Your task to perform on an android device: Open wifi settings Image 0: 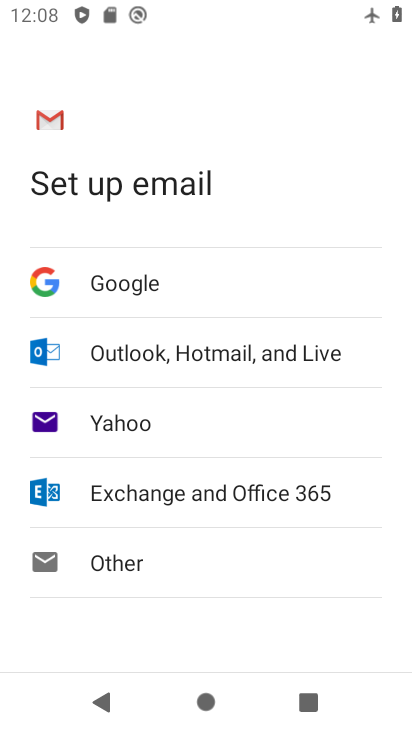
Step 0: press home button
Your task to perform on an android device: Open wifi settings Image 1: 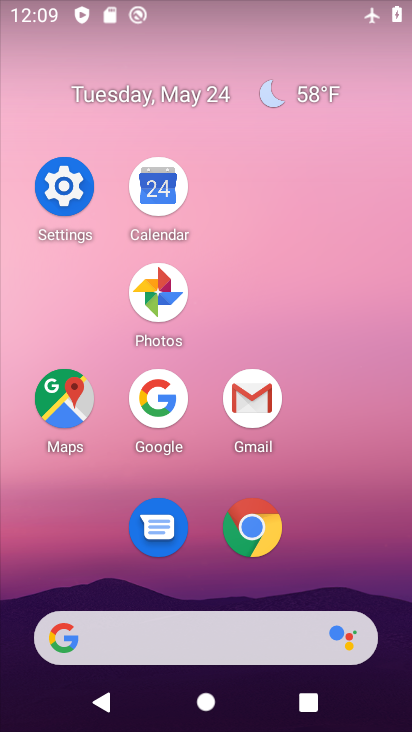
Step 1: click (88, 187)
Your task to perform on an android device: Open wifi settings Image 2: 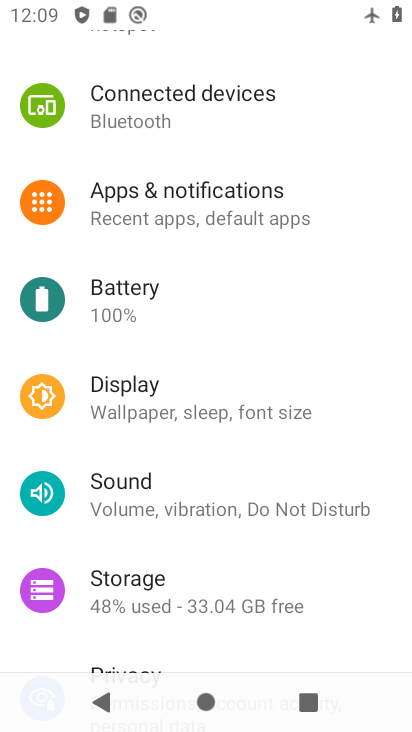
Step 2: drag from (246, 242) to (271, 471)
Your task to perform on an android device: Open wifi settings Image 3: 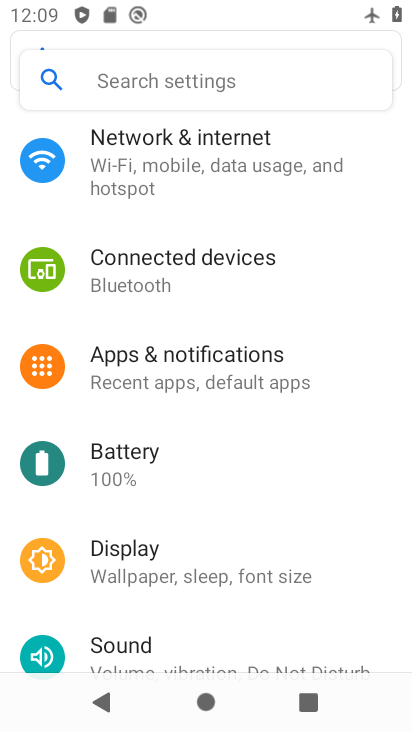
Step 3: click (200, 195)
Your task to perform on an android device: Open wifi settings Image 4: 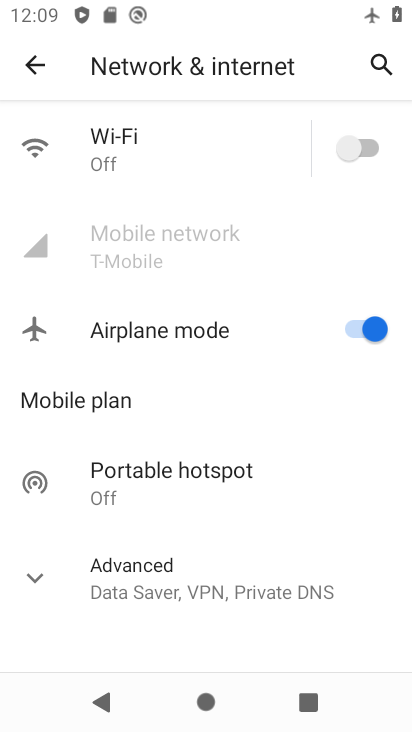
Step 4: task complete